Your task to perform on an android device: Go to accessibility settings Image 0: 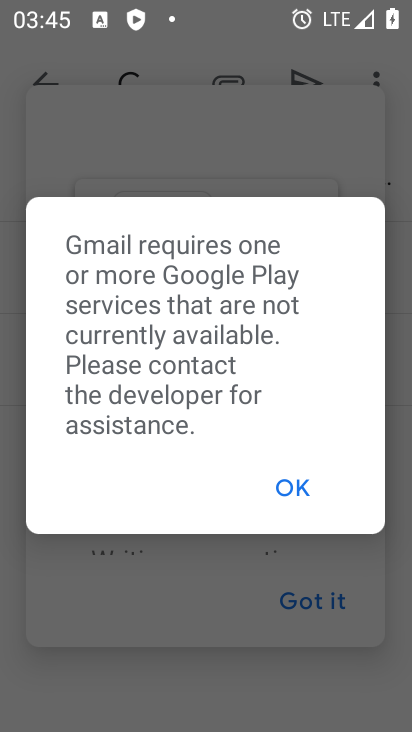
Step 0: press home button
Your task to perform on an android device: Go to accessibility settings Image 1: 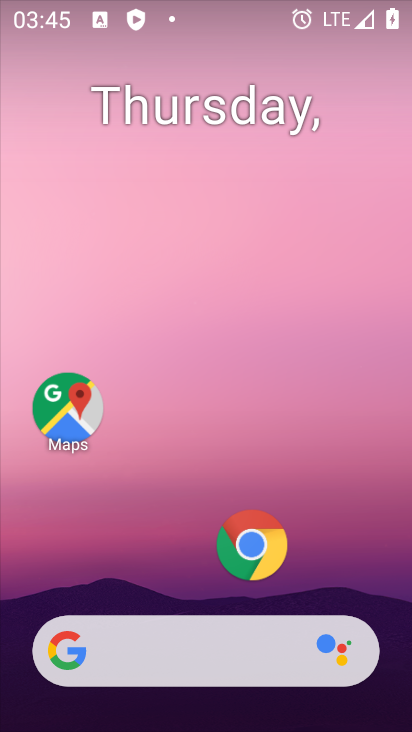
Step 1: drag from (242, 505) to (268, 29)
Your task to perform on an android device: Go to accessibility settings Image 2: 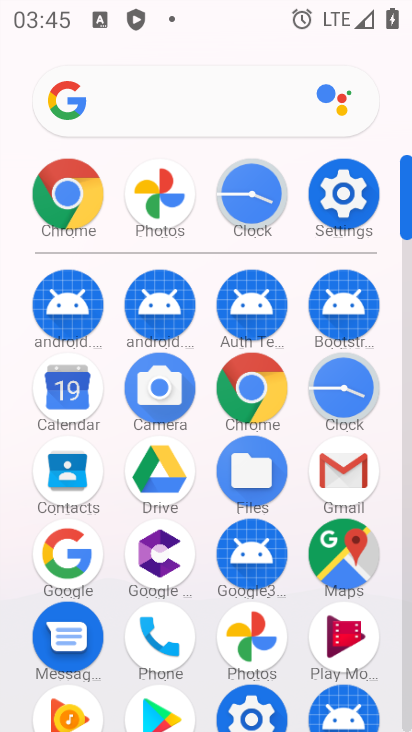
Step 2: click (359, 206)
Your task to perform on an android device: Go to accessibility settings Image 3: 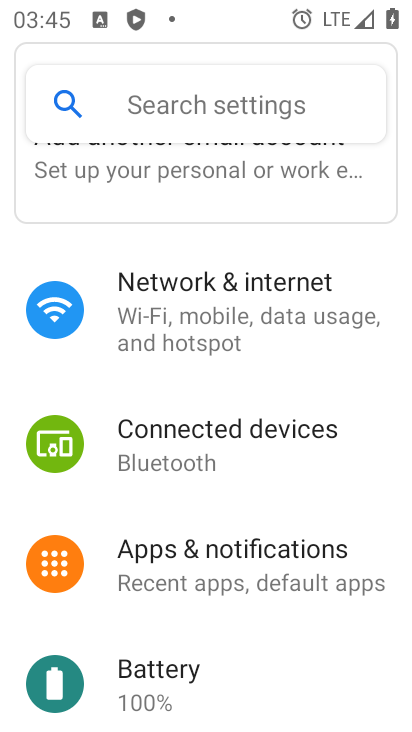
Step 3: drag from (251, 634) to (326, 76)
Your task to perform on an android device: Go to accessibility settings Image 4: 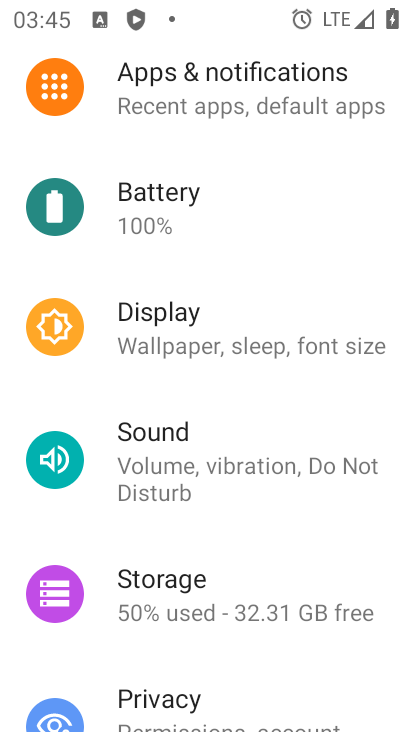
Step 4: drag from (300, 715) to (378, 185)
Your task to perform on an android device: Go to accessibility settings Image 5: 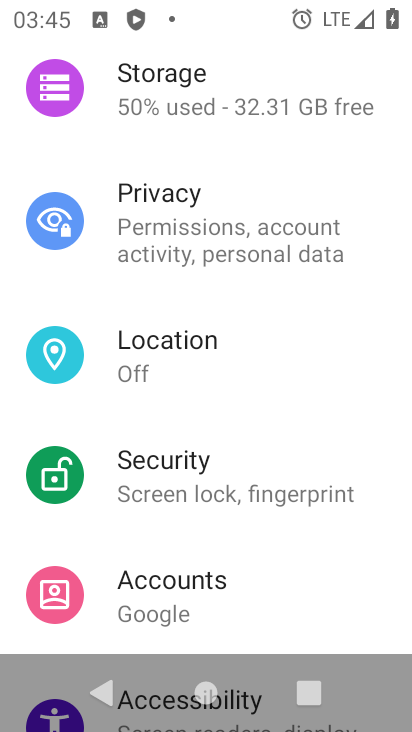
Step 5: drag from (293, 601) to (290, 275)
Your task to perform on an android device: Go to accessibility settings Image 6: 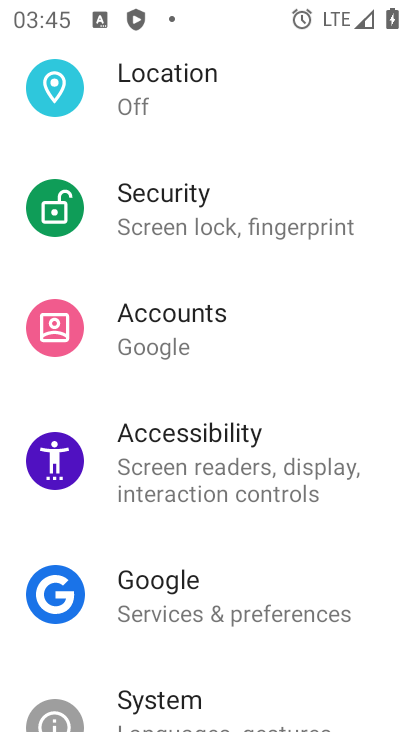
Step 6: click (273, 464)
Your task to perform on an android device: Go to accessibility settings Image 7: 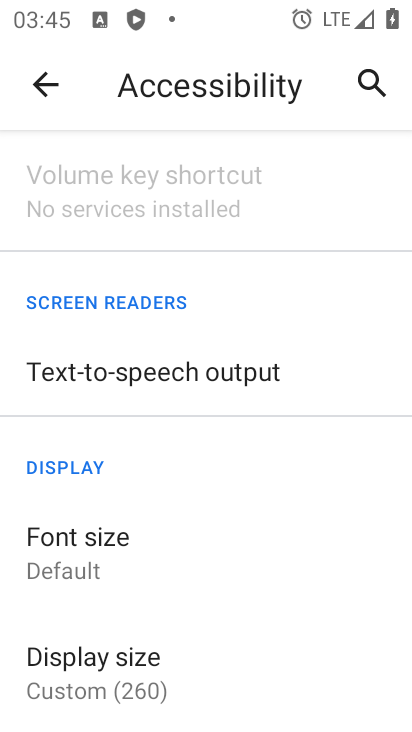
Step 7: task complete